Your task to perform on an android device: Open ESPN.com Image 0: 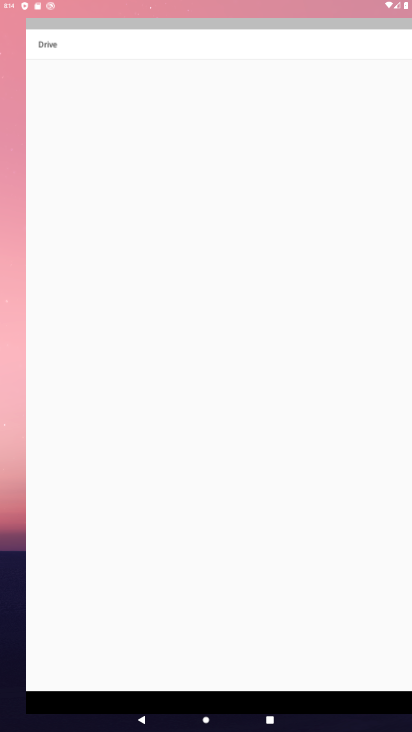
Step 0: press home button
Your task to perform on an android device: Open ESPN.com Image 1: 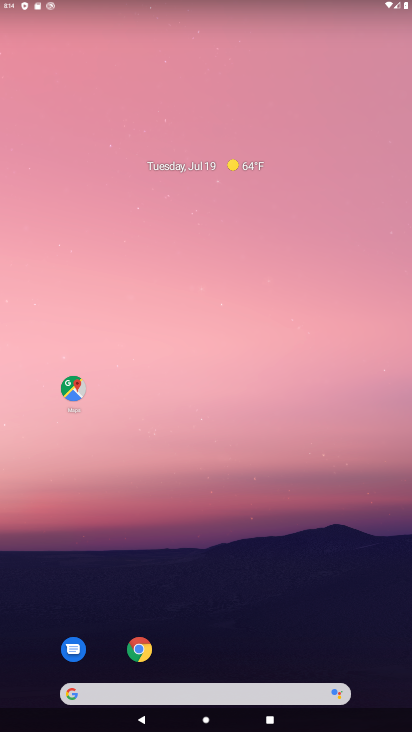
Step 1: click (147, 638)
Your task to perform on an android device: Open ESPN.com Image 2: 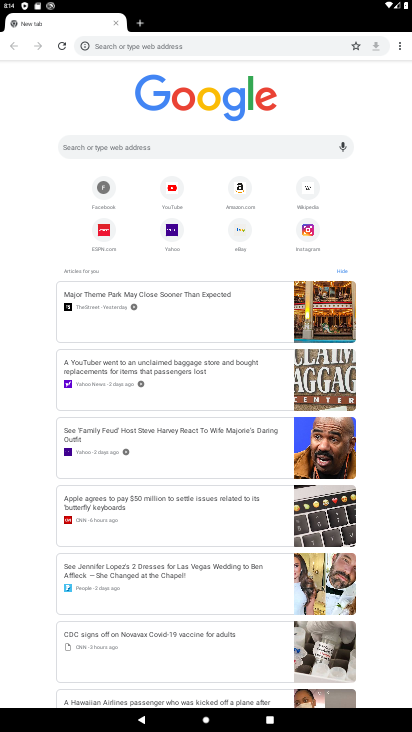
Step 2: click (101, 232)
Your task to perform on an android device: Open ESPN.com Image 3: 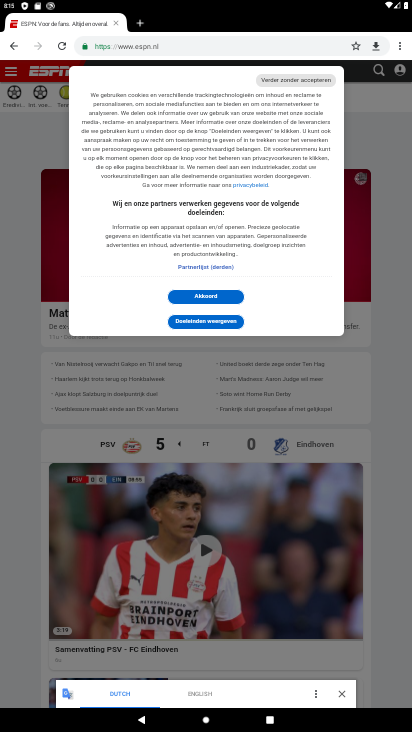
Step 3: task complete